Your task to perform on an android device: Do I have any events today? Image 0: 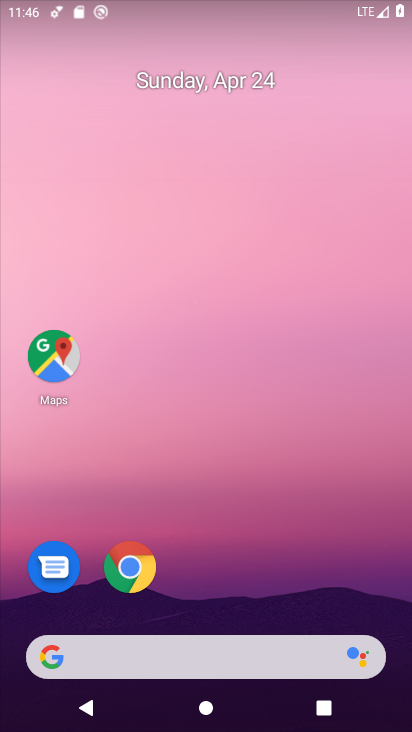
Step 0: drag from (178, 531) to (87, 112)
Your task to perform on an android device: Do I have any events today? Image 1: 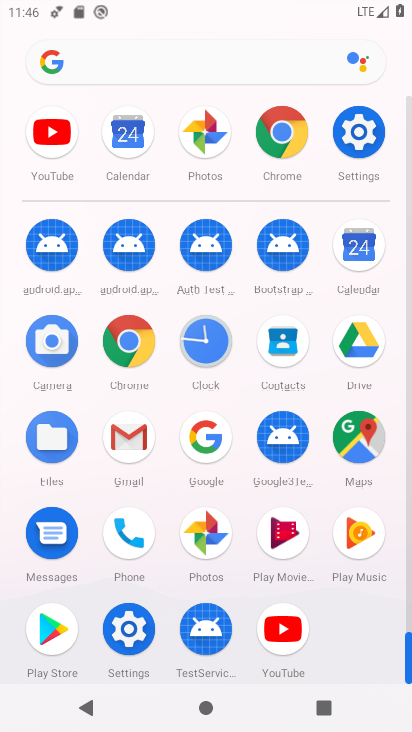
Step 1: click (336, 246)
Your task to perform on an android device: Do I have any events today? Image 2: 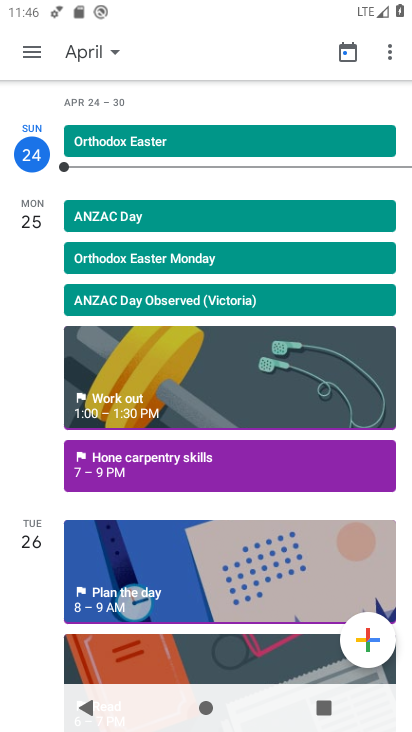
Step 2: task complete